Your task to perform on an android device: open app "Microsoft Excel" Image 0: 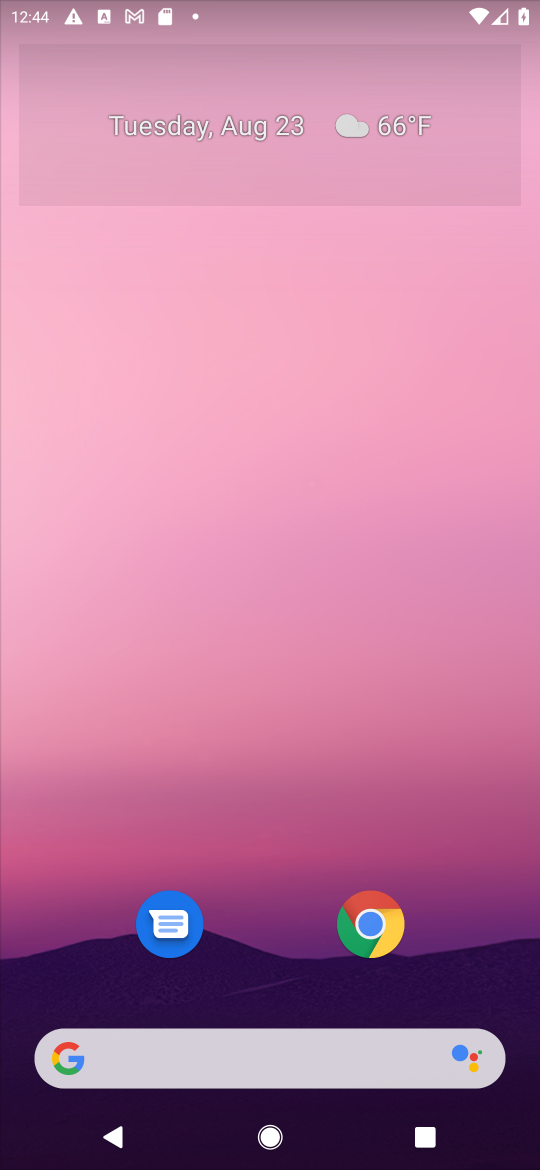
Step 0: press home button
Your task to perform on an android device: open app "Microsoft Excel" Image 1: 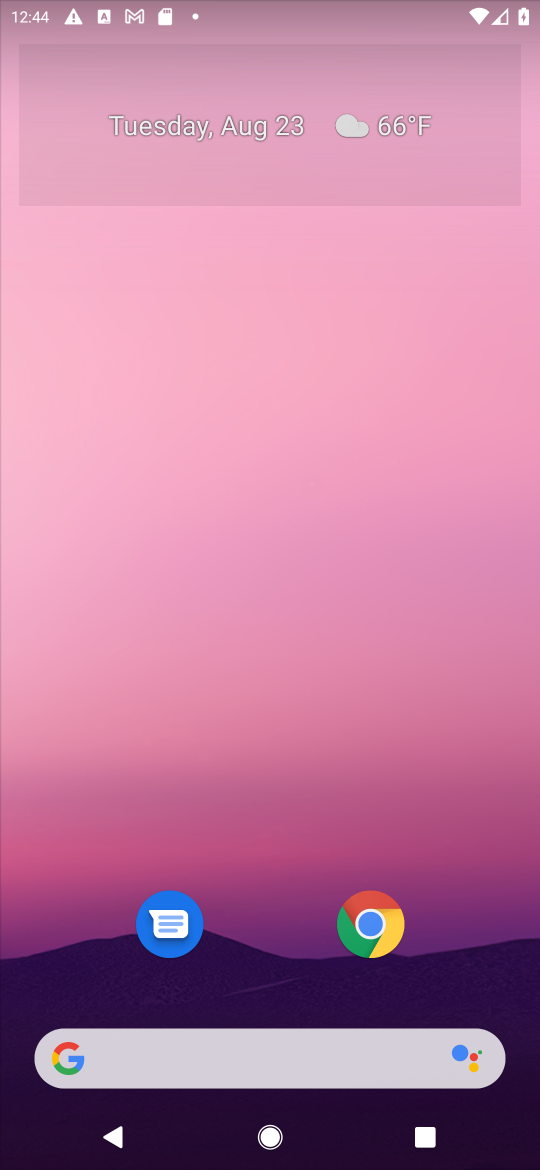
Step 1: drag from (456, 955) to (535, 190)
Your task to perform on an android device: open app "Microsoft Excel" Image 2: 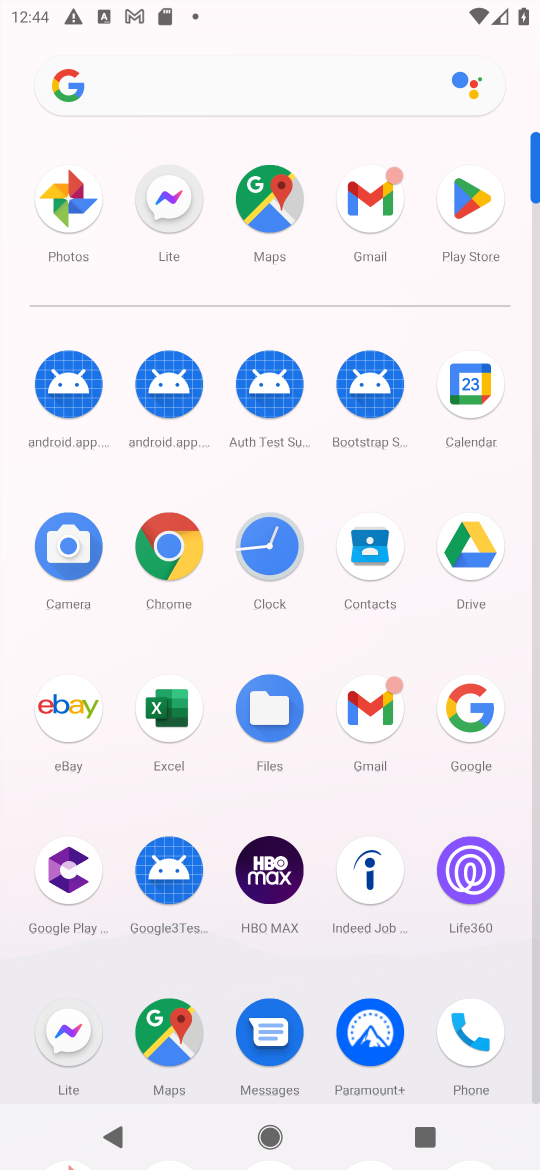
Step 2: click (466, 188)
Your task to perform on an android device: open app "Microsoft Excel" Image 3: 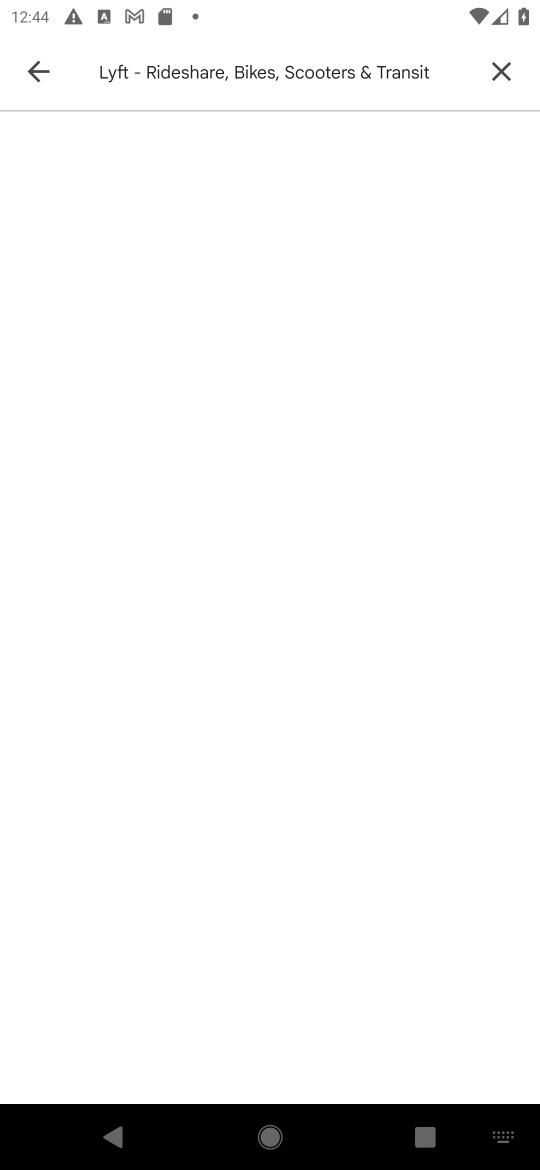
Step 3: press back button
Your task to perform on an android device: open app "Microsoft Excel" Image 4: 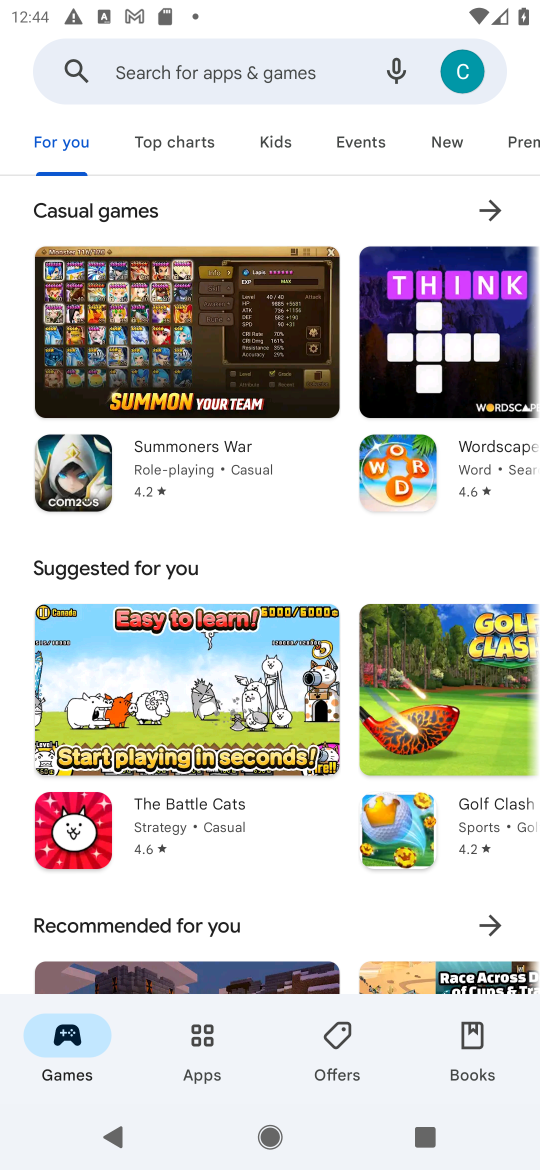
Step 4: click (277, 70)
Your task to perform on an android device: open app "Microsoft Excel" Image 5: 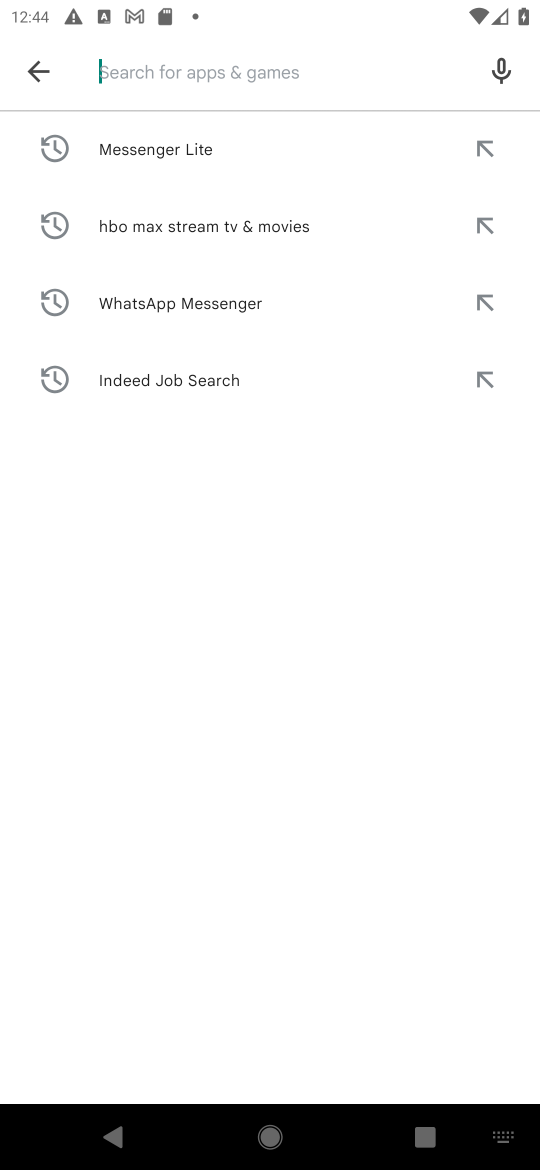
Step 5: type "Microsoft Excel"
Your task to perform on an android device: open app "Microsoft Excel" Image 6: 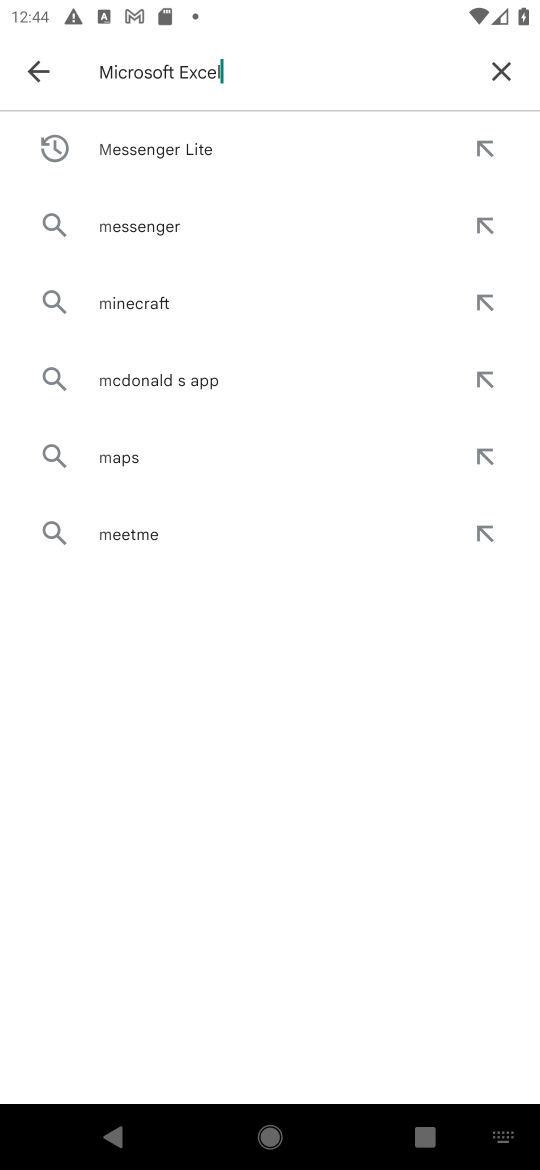
Step 6: press enter
Your task to perform on an android device: open app "Microsoft Excel" Image 7: 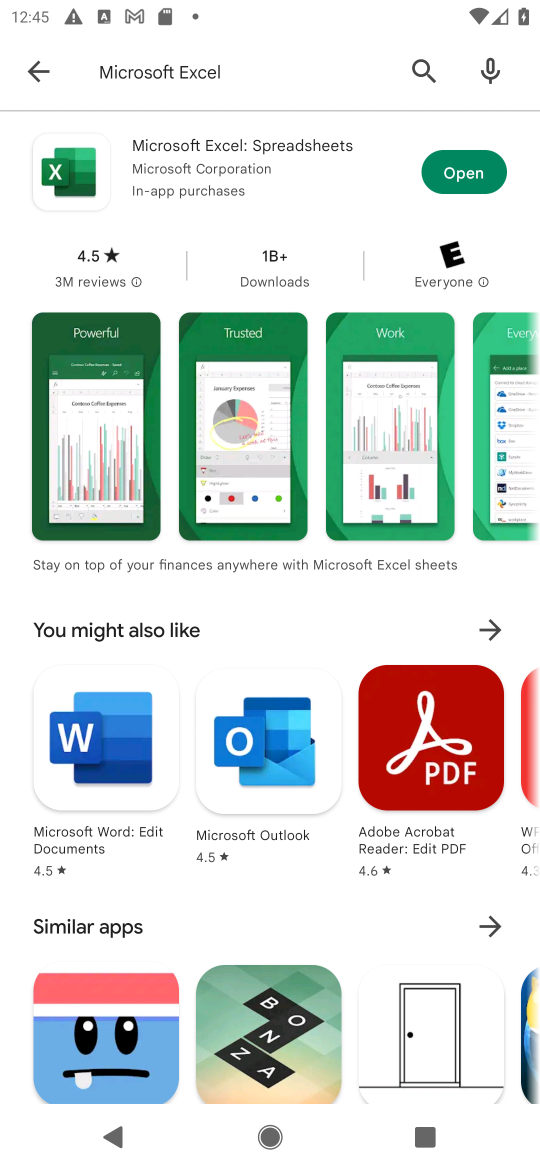
Step 7: click (488, 177)
Your task to perform on an android device: open app "Microsoft Excel" Image 8: 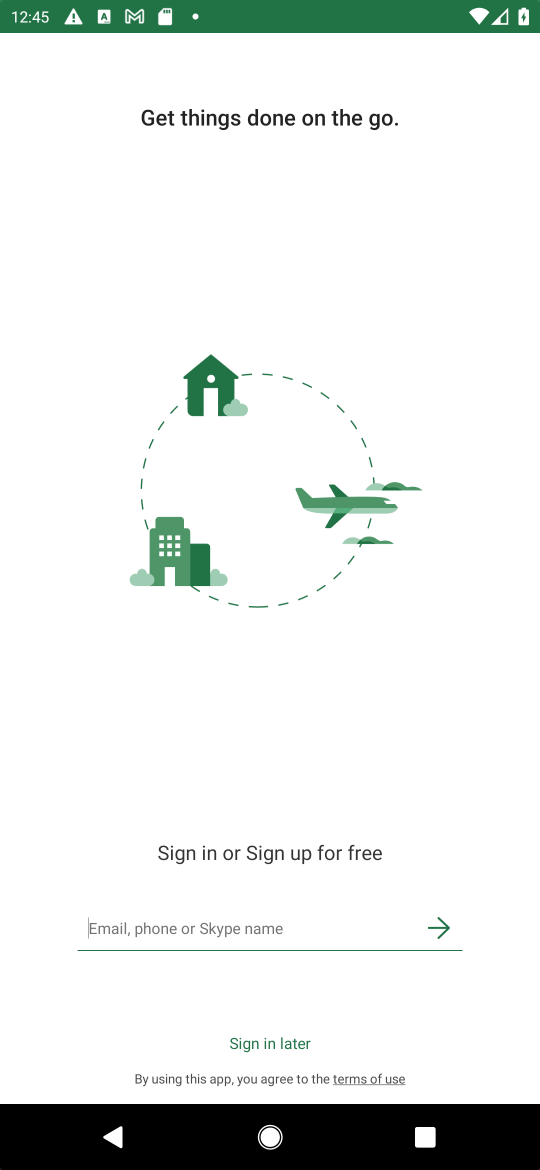
Step 8: task complete